Your task to perform on an android device: set an alarm Image 0: 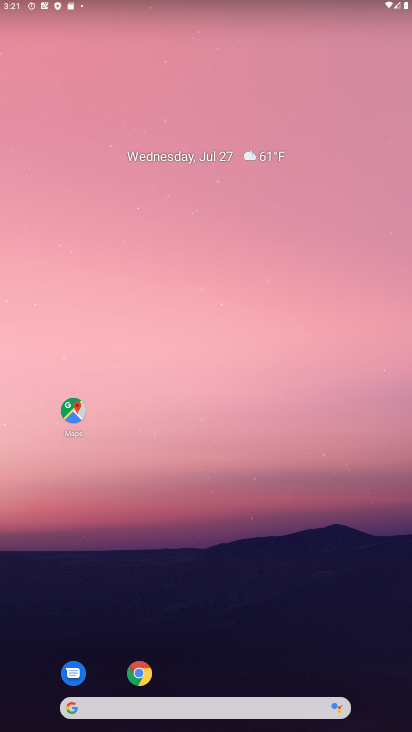
Step 0: drag from (43, 621) to (192, 225)
Your task to perform on an android device: set an alarm Image 1: 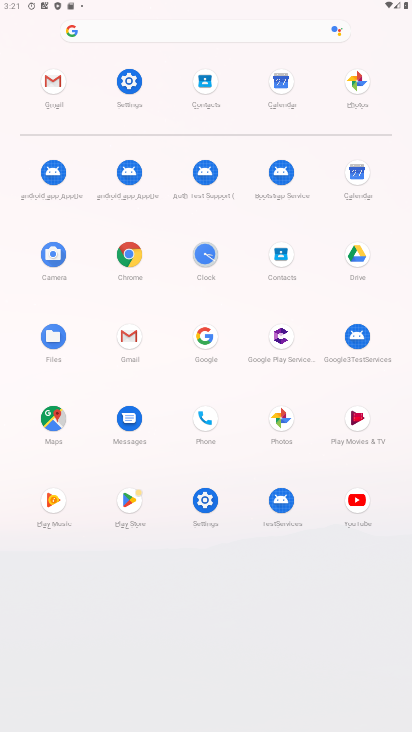
Step 1: click (205, 270)
Your task to perform on an android device: set an alarm Image 2: 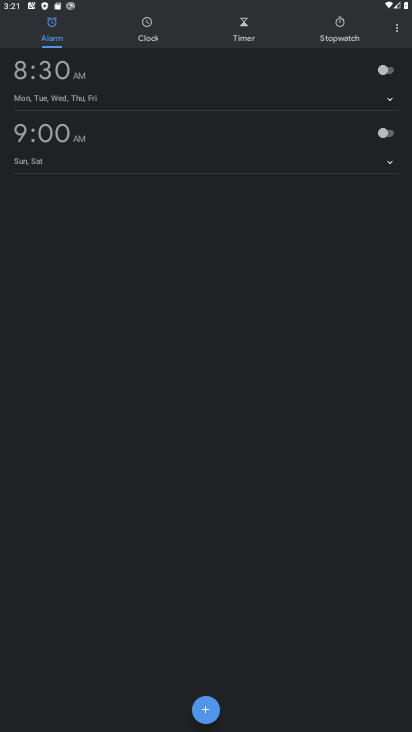
Step 2: task complete